Your task to perform on an android device: set default search engine in the chrome app Image 0: 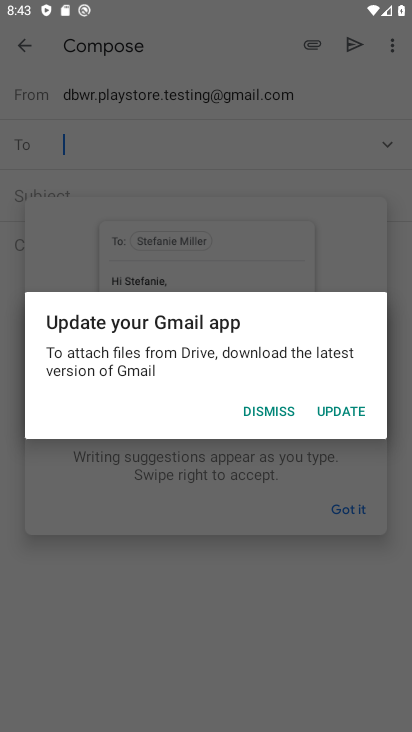
Step 0: press home button
Your task to perform on an android device: set default search engine in the chrome app Image 1: 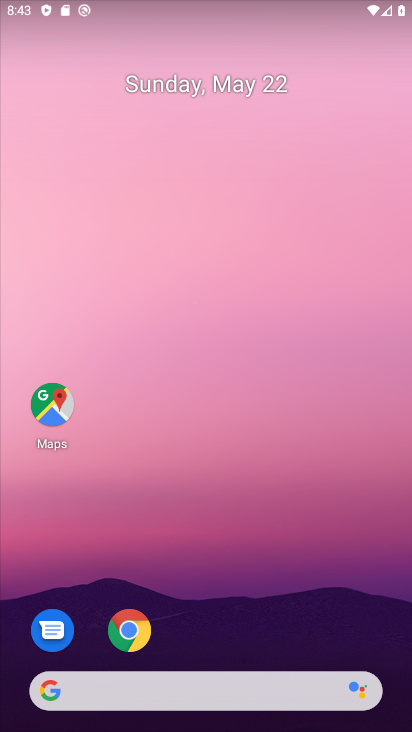
Step 1: click (136, 624)
Your task to perform on an android device: set default search engine in the chrome app Image 2: 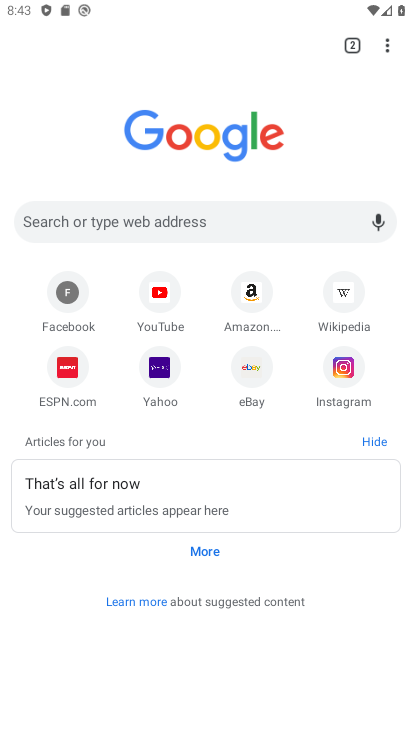
Step 2: click (384, 40)
Your task to perform on an android device: set default search engine in the chrome app Image 3: 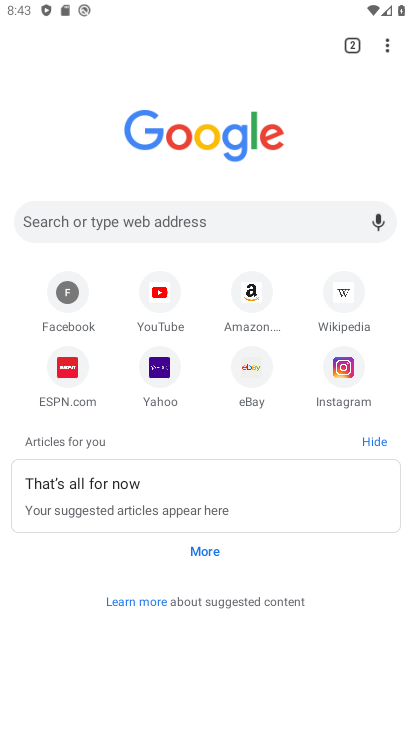
Step 3: click (386, 40)
Your task to perform on an android device: set default search engine in the chrome app Image 4: 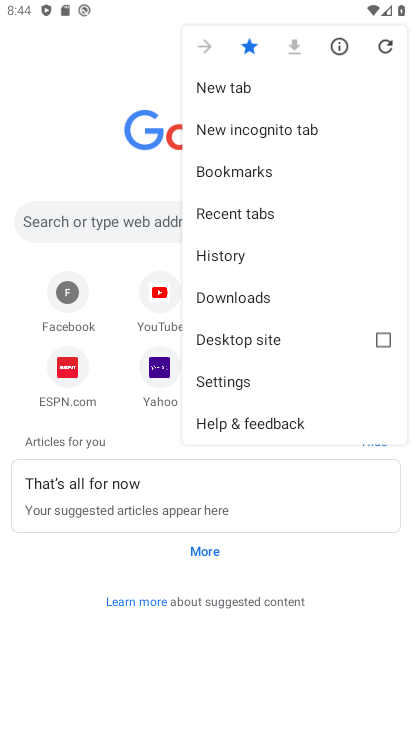
Step 4: click (222, 381)
Your task to perform on an android device: set default search engine in the chrome app Image 5: 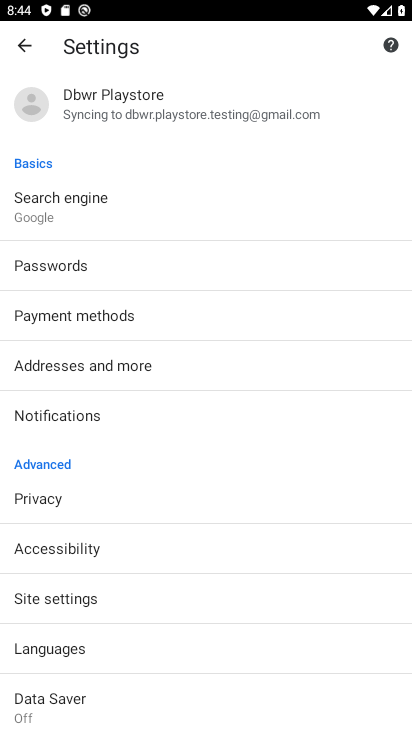
Step 5: click (76, 211)
Your task to perform on an android device: set default search engine in the chrome app Image 6: 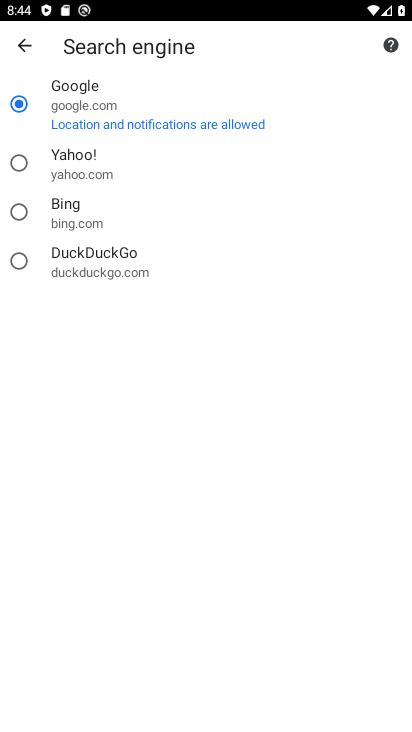
Step 6: task complete